Your task to perform on an android device: Go to accessibility settings Image 0: 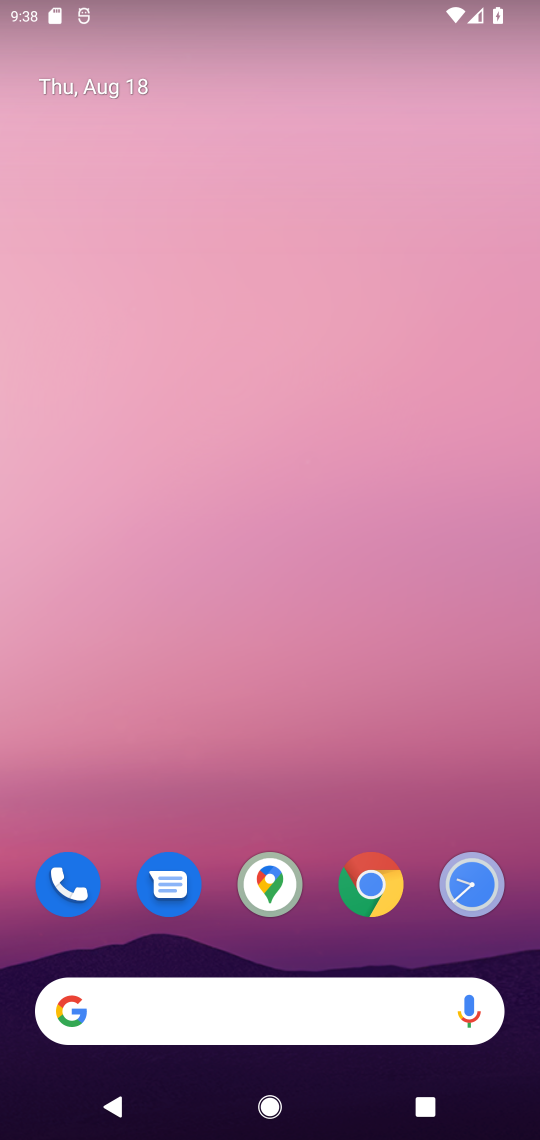
Step 0: drag from (249, 936) to (282, 23)
Your task to perform on an android device: Go to accessibility settings Image 1: 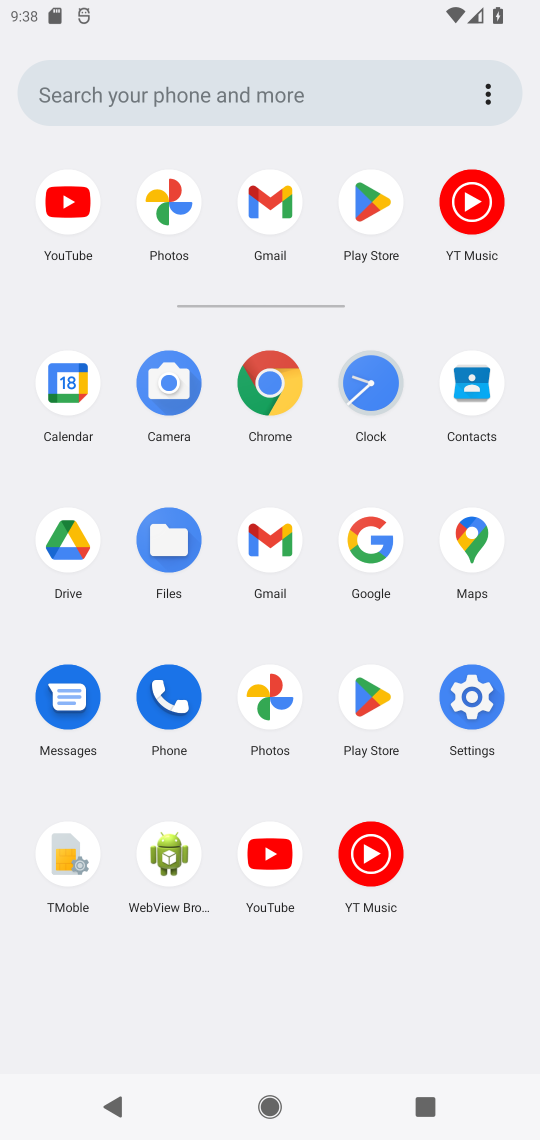
Step 1: click (488, 687)
Your task to perform on an android device: Go to accessibility settings Image 2: 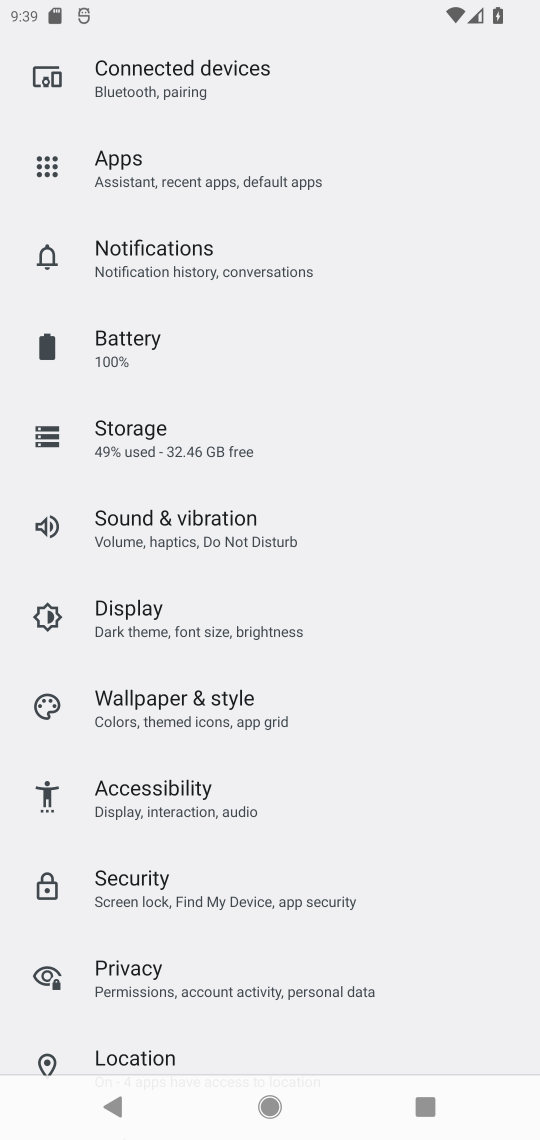
Step 2: click (188, 790)
Your task to perform on an android device: Go to accessibility settings Image 3: 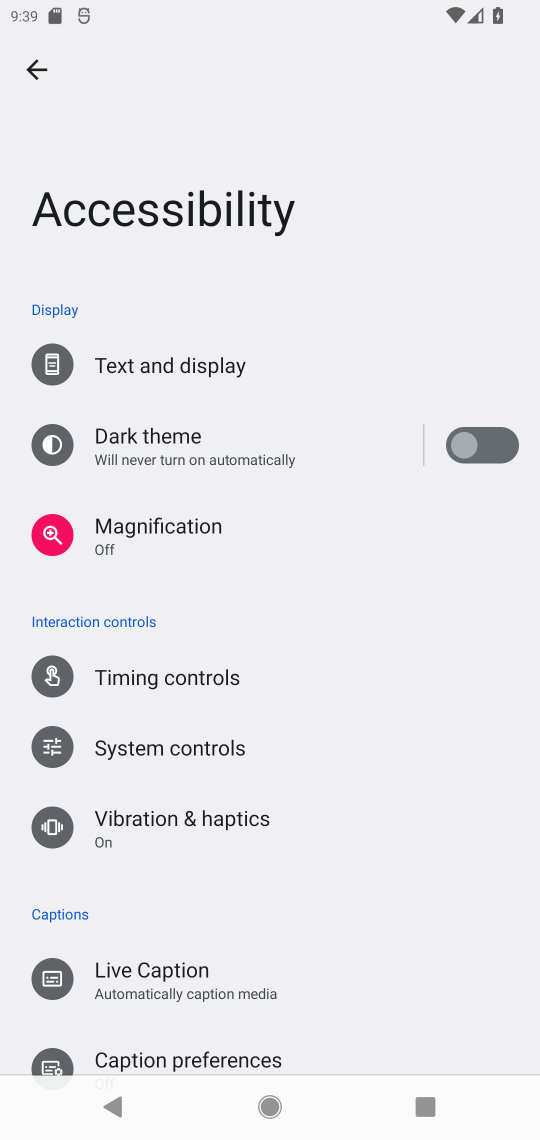
Step 3: task complete